Your task to perform on an android device: turn on notifications settings in the gmail app Image 0: 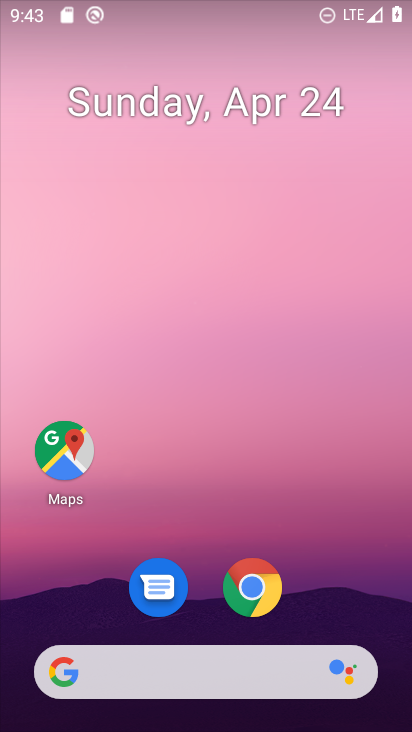
Step 0: drag from (362, 544) to (358, 147)
Your task to perform on an android device: turn on notifications settings in the gmail app Image 1: 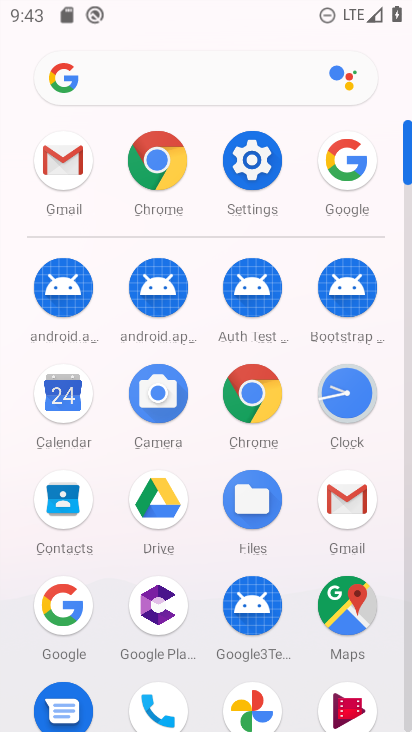
Step 1: click (347, 507)
Your task to perform on an android device: turn on notifications settings in the gmail app Image 2: 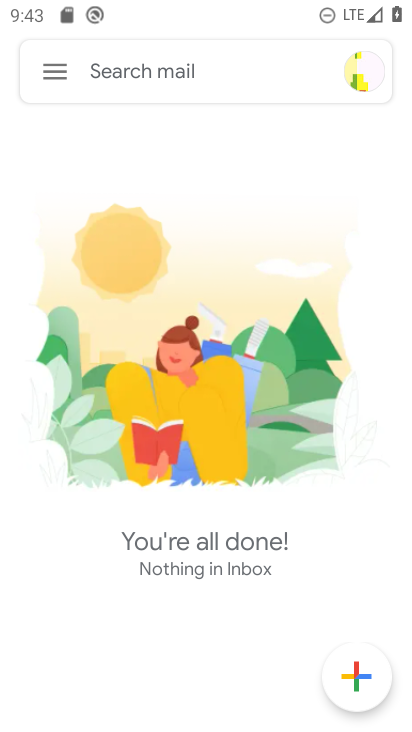
Step 2: click (54, 74)
Your task to perform on an android device: turn on notifications settings in the gmail app Image 3: 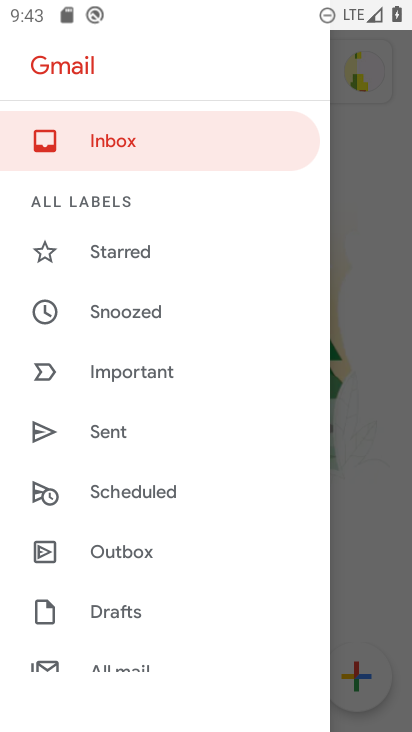
Step 3: drag from (155, 613) to (208, 186)
Your task to perform on an android device: turn on notifications settings in the gmail app Image 4: 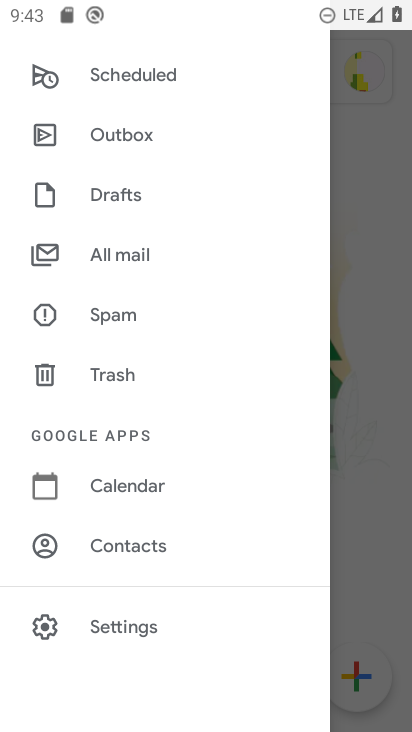
Step 4: click (120, 630)
Your task to perform on an android device: turn on notifications settings in the gmail app Image 5: 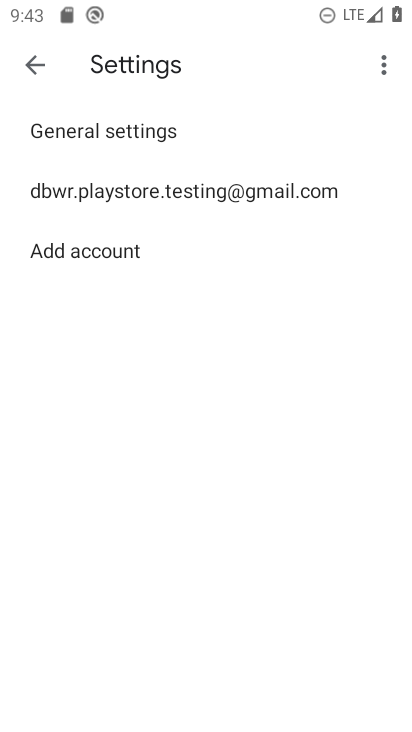
Step 5: click (237, 183)
Your task to perform on an android device: turn on notifications settings in the gmail app Image 6: 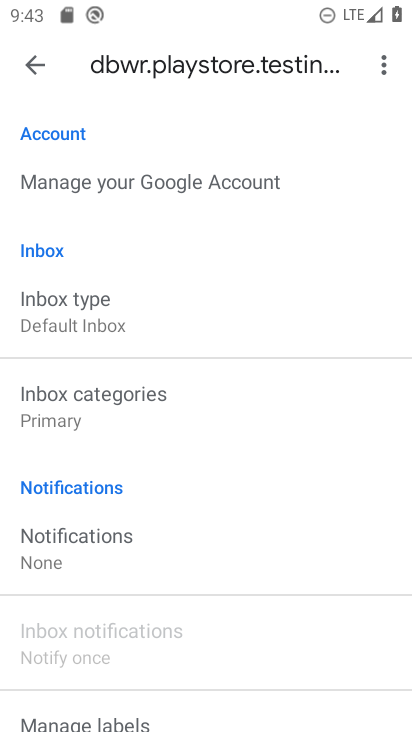
Step 6: click (77, 528)
Your task to perform on an android device: turn on notifications settings in the gmail app Image 7: 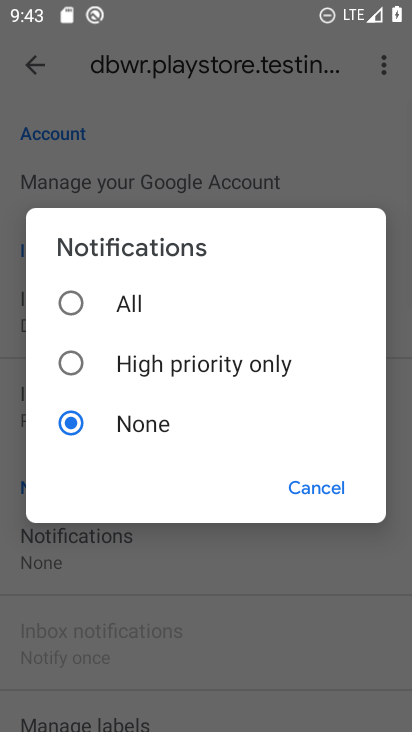
Step 7: click (121, 308)
Your task to perform on an android device: turn on notifications settings in the gmail app Image 8: 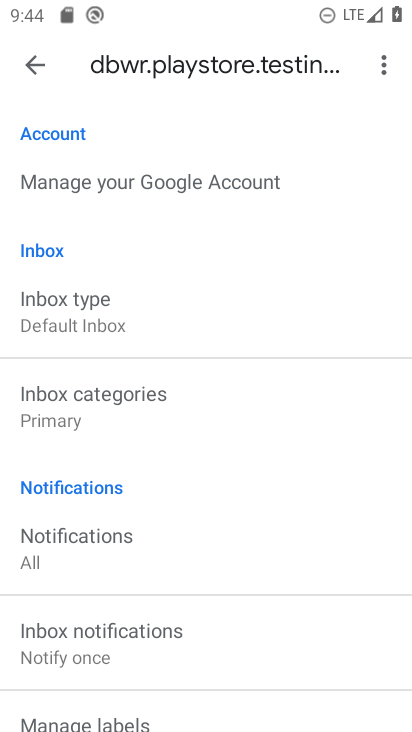
Step 8: task complete